Your task to perform on an android device: turn off airplane mode Image 0: 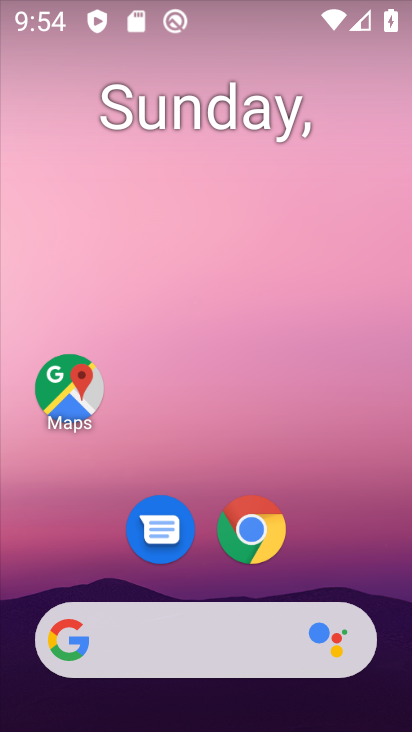
Step 0: drag from (192, 600) to (395, 614)
Your task to perform on an android device: turn off airplane mode Image 1: 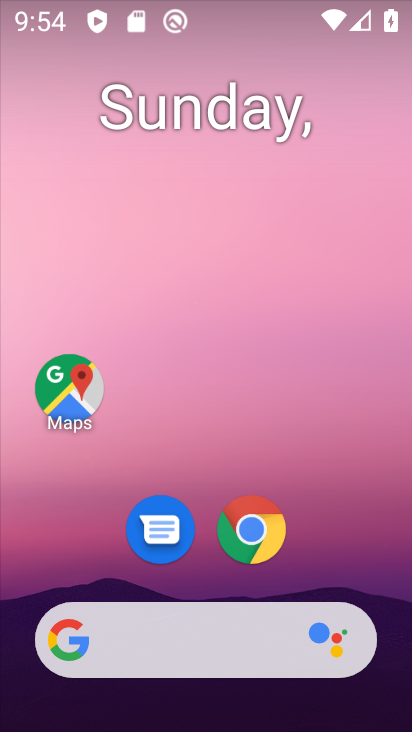
Step 1: drag from (295, 577) to (233, 1)
Your task to perform on an android device: turn off airplane mode Image 2: 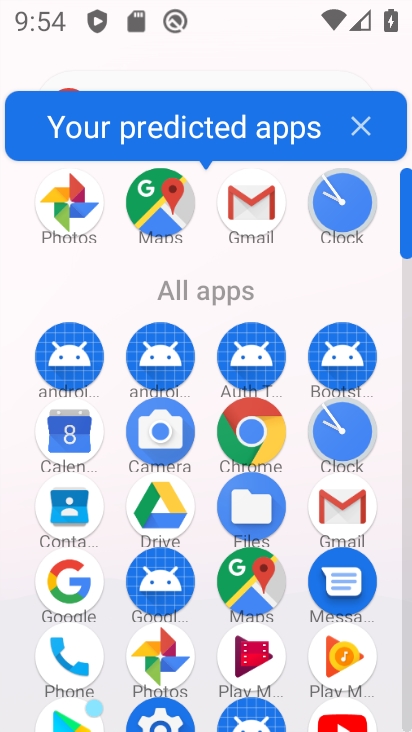
Step 2: drag from (315, 624) to (288, 148)
Your task to perform on an android device: turn off airplane mode Image 3: 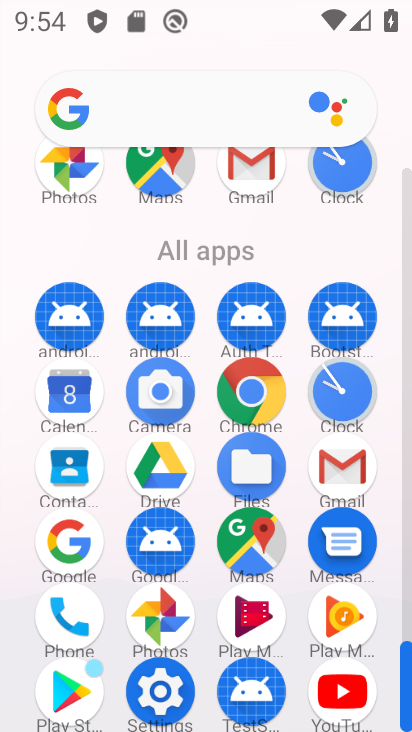
Step 3: click (158, 677)
Your task to perform on an android device: turn off airplane mode Image 4: 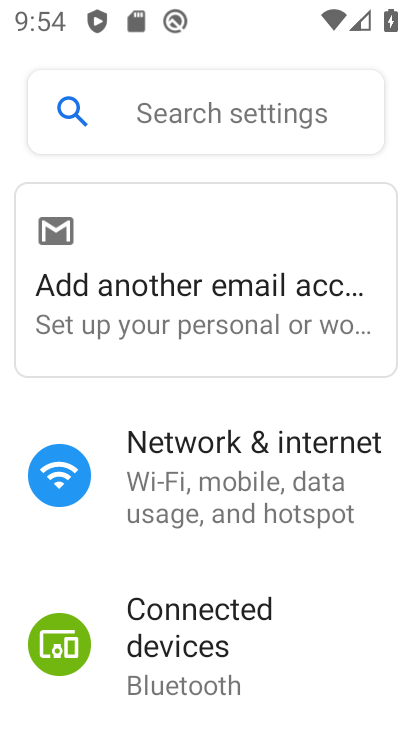
Step 4: click (269, 499)
Your task to perform on an android device: turn off airplane mode Image 5: 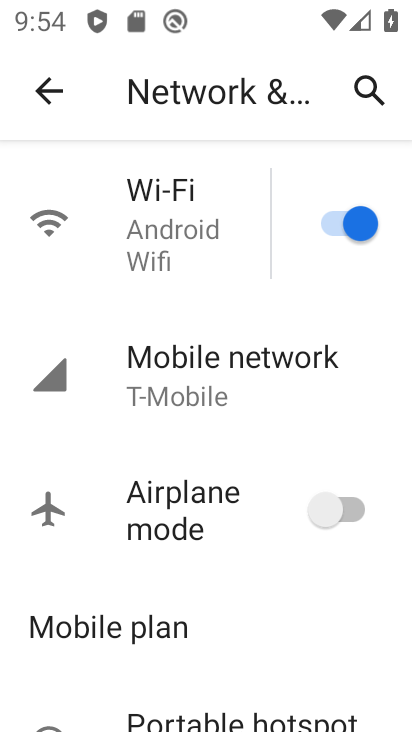
Step 5: task complete